Your task to perform on an android device: change the clock display to analog Image 0: 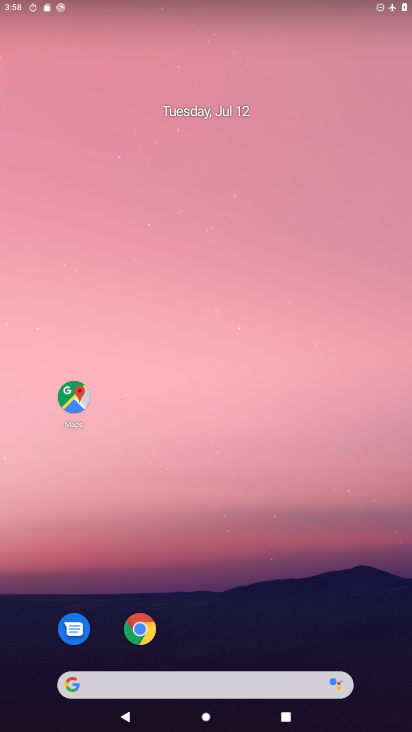
Step 0: drag from (267, 554) to (285, 120)
Your task to perform on an android device: change the clock display to analog Image 1: 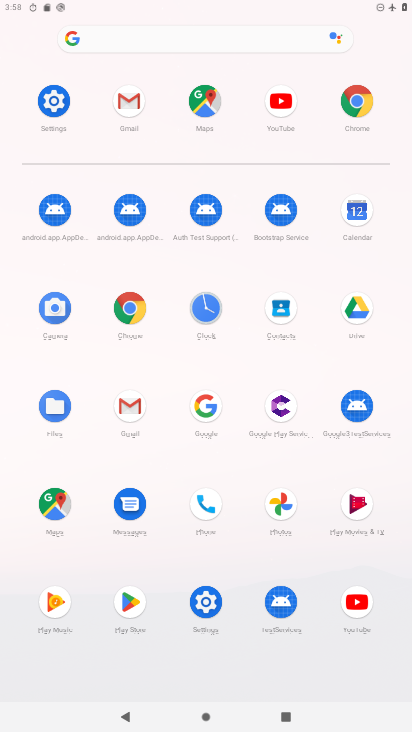
Step 1: click (206, 588)
Your task to perform on an android device: change the clock display to analog Image 2: 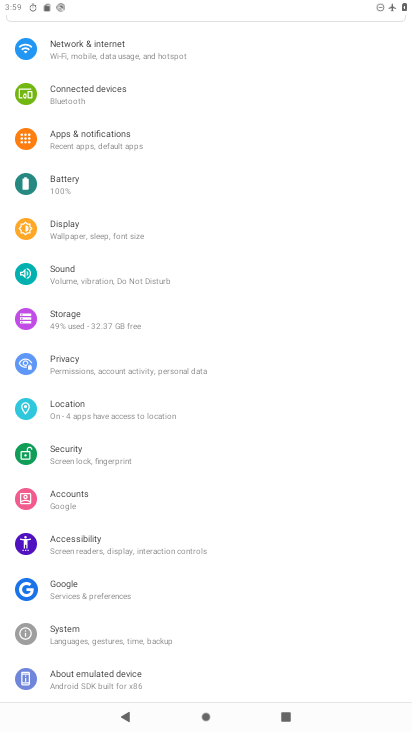
Step 2: press home button
Your task to perform on an android device: change the clock display to analog Image 3: 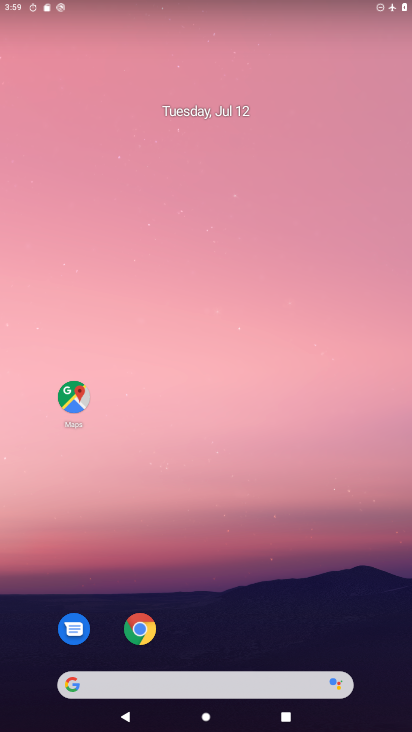
Step 3: drag from (236, 635) to (308, 98)
Your task to perform on an android device: change the clock display to analog Image 4: 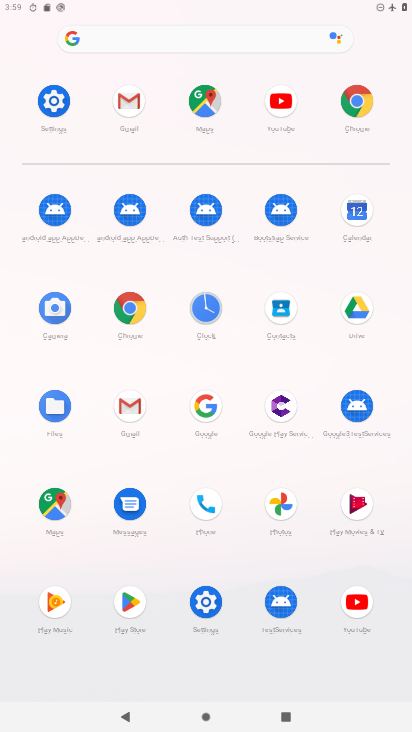
Step 4: click (213, 311)
Your task to perform on an android device: change the clock display to analog Image 5: 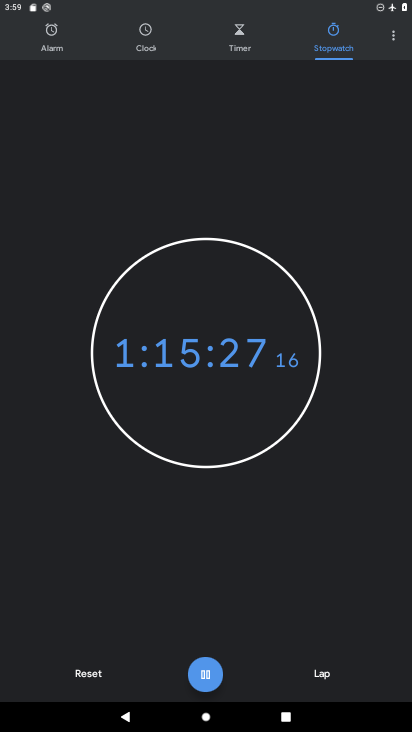
Step 5: click (395, 37)
Your task to perform on an android device: change the clock display to analog Image 6: 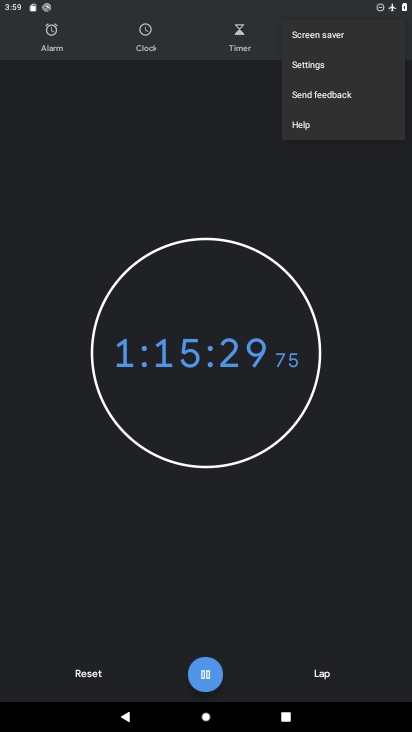
Step 6: click (320, 69)
Your task to perform on an android device: change the clock display to analog Image 7: 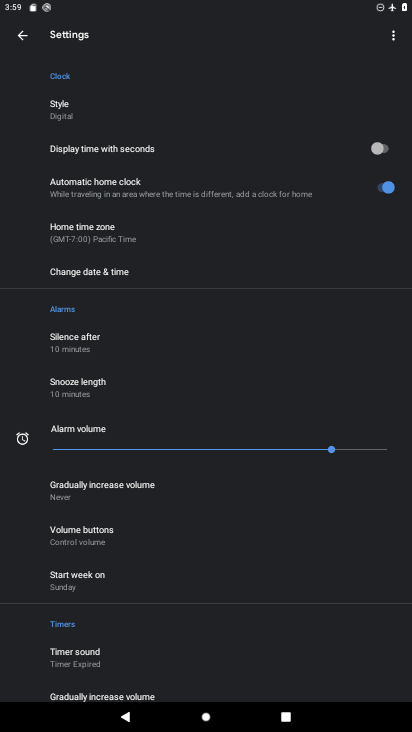
Step 7: click (66, 107)
Your task to perform on an android device: change the clock display to analog Image 8: 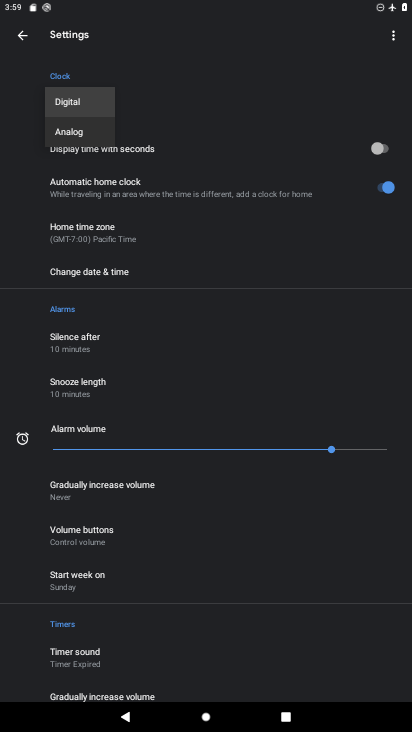
Step 8: click (74, 137)
Your task to perform on an android device: change the clock display to analog Image 9: 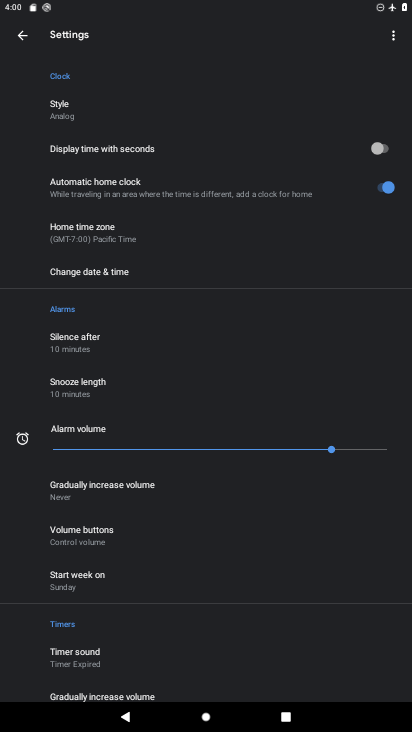
Step 9: task complete